Your task to perform on an android device: Open Google Chrome and open the bookmarks view Image 0: 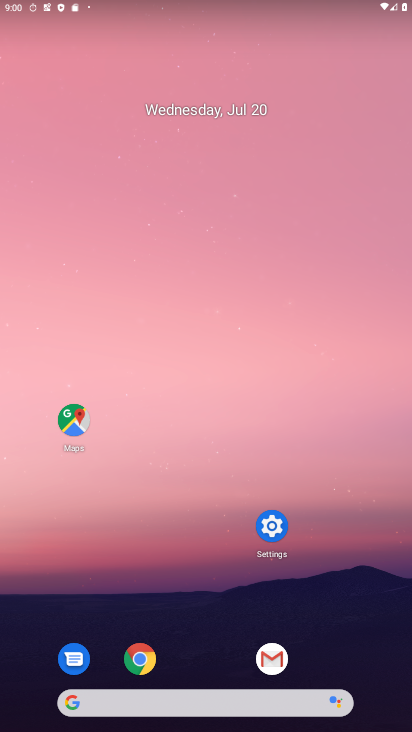
Step 0: click (133, 658)
Your task to perform on an android device: Open Google Chrome and open the bookmarks view Image 1: 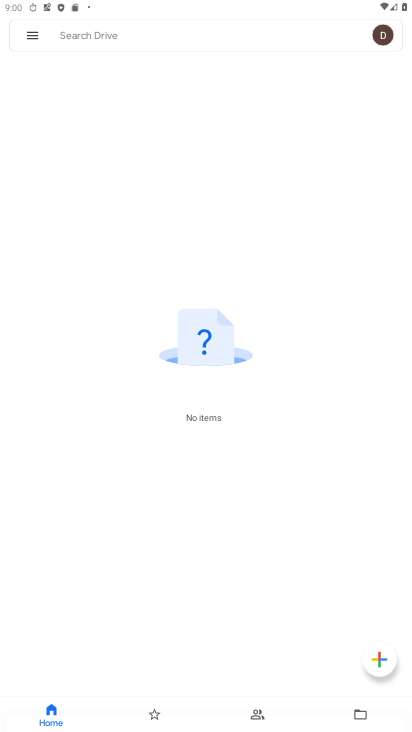
Step 1: press home button
Your task to perform on an android device: Open Google Chrome and open the bookmarks view Image 2: 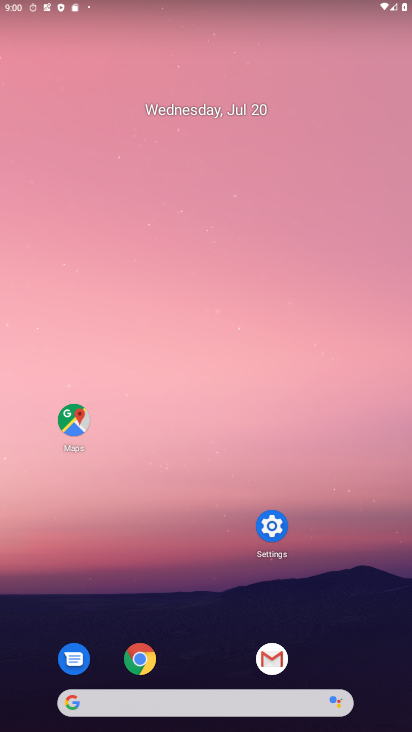
Step 2: click (146, 675)
Your task to perform on an android device: Open Google Chrome and open the bookmarks view Image 3: 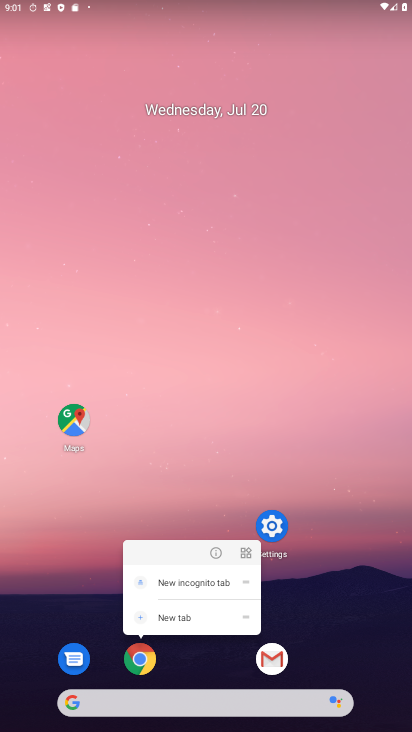
Step 3: click (136, 661)
Your task to perform on an android device: Open Google Chrome and open the bookmarks view Image 4: 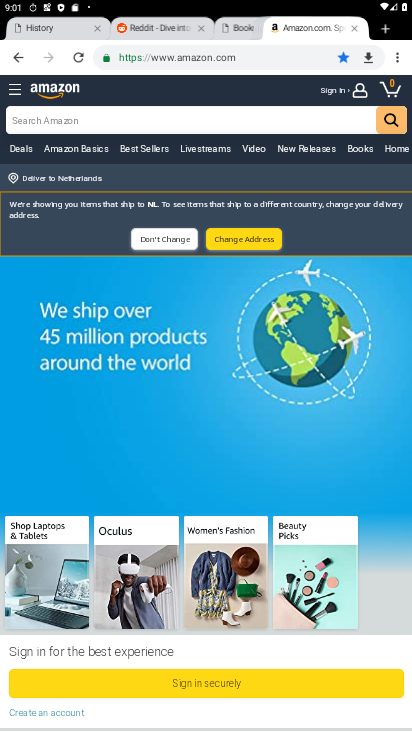
Step 4: click (397, 63)
Your task to perform on an android device: Open Google Chrome and open the bookmarks view Image 5: 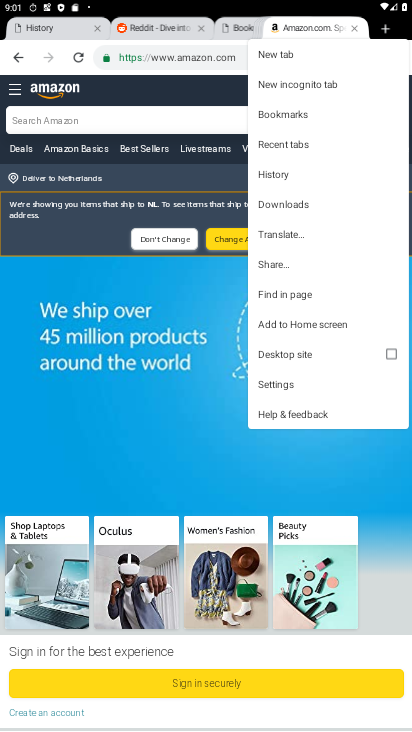
Step 5: click (291, 119)
Your task to perform on an android device: Open Google Chrome and open the bookmarks view Image 6: 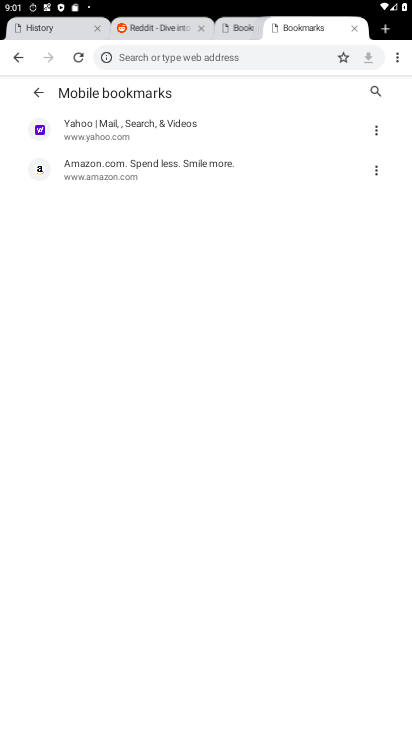
Step 6: task complete